Your task to perform on an android device: Go to display settings Image 0: 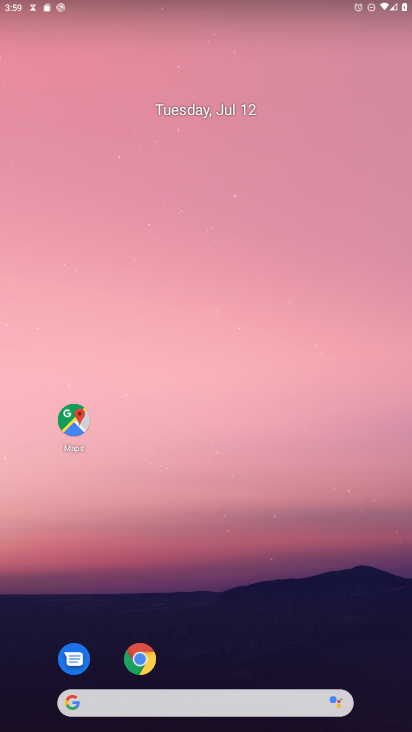
Step 0: drag from (171, 511) to (204, 95)
Your task to perform on an android device: Go to display settings Image 1: 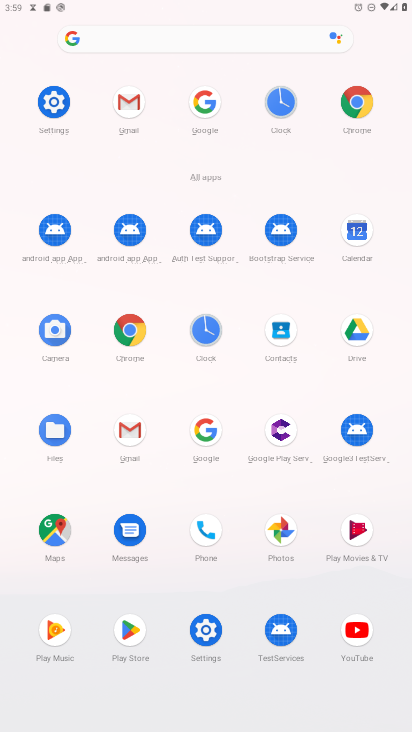
Step 1: click (54, 110)
Your task to perform on an android device: Go to display settings Image 2: 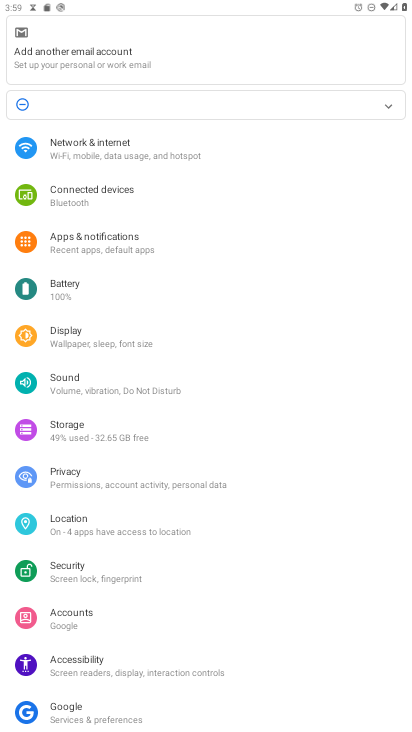
Step 2: click (63, 333)
Your task to perform on an android device: Go to display settings Image 3: 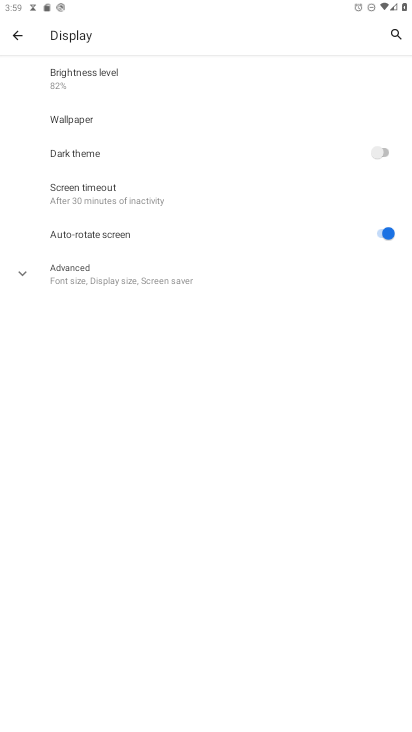
Step 3: task complete